Your task to perform on an android device: Open network settings Image 0: 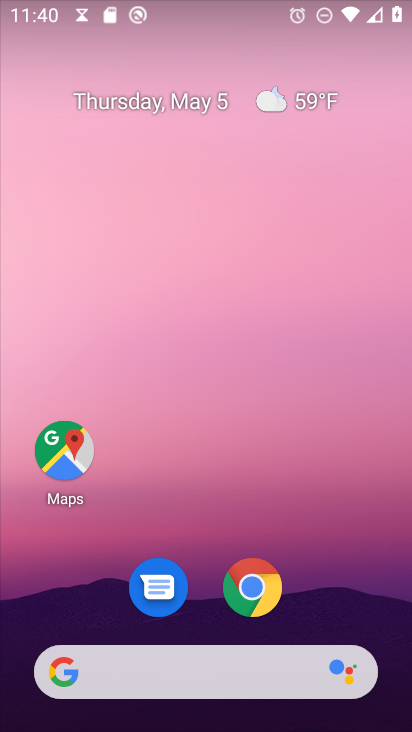
Step 0: drag from (307, 575) to (263, 0)
Your task to perform on an android device: Open network settings Image 1: 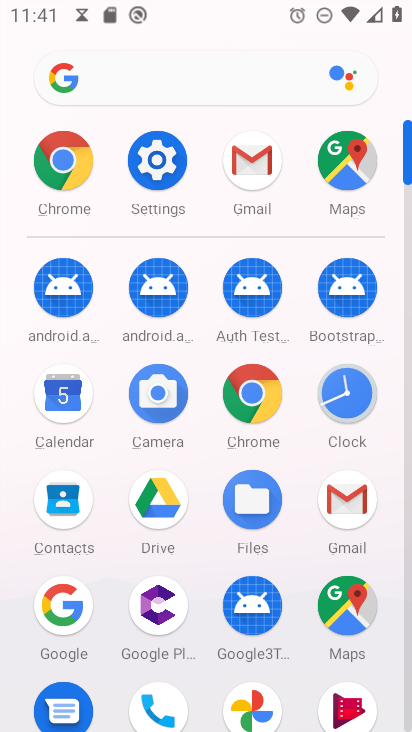
Step 1: click (158, 153)
Your task to perform on an android device: Open network settings Image 2: 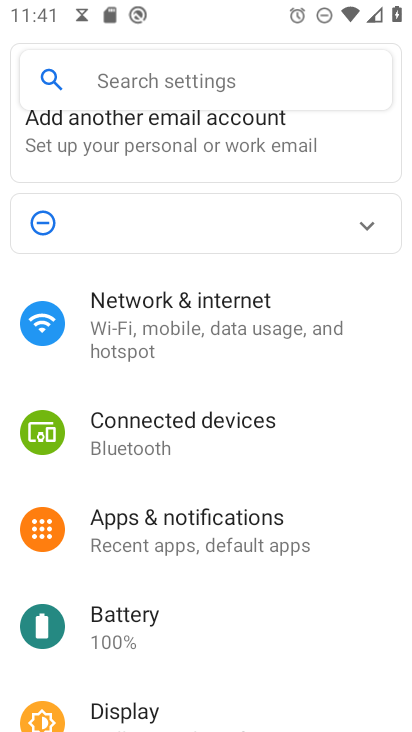
Step 2: drag from (351, 576) to (332, 187)
Your task to perform on an android device: Open network settings Image 3: 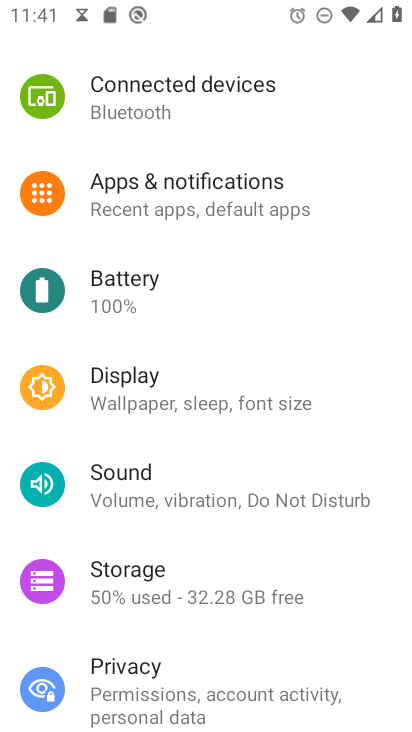
Step 3: drag from (318, 184) to (255, 617)
Your task to perform on an android device: Open network settings Image 4: 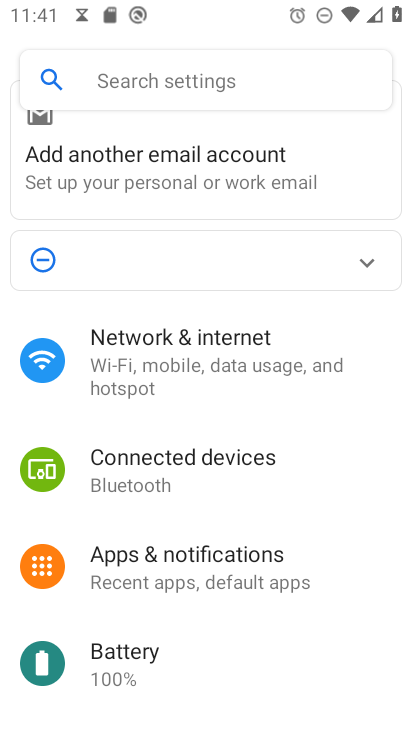
Step 4: drag from (255, 560) to (320, 185)
Your task to perform on an android device: Open network settings Image 5: 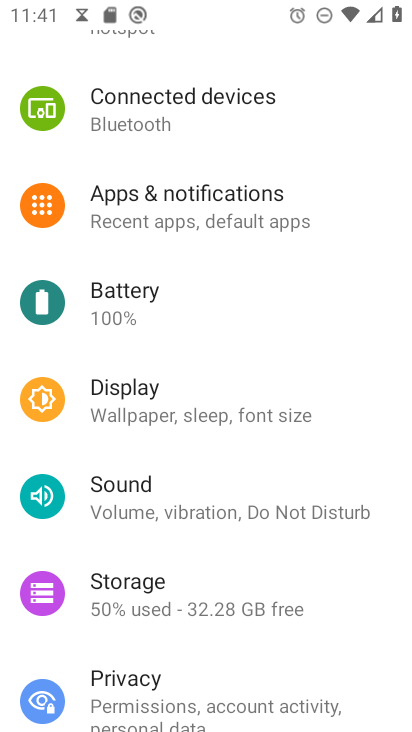
Step 5: drag from (393, 110) to (350, 461)
Your task to perform on an android device: Open network settings Image 6: 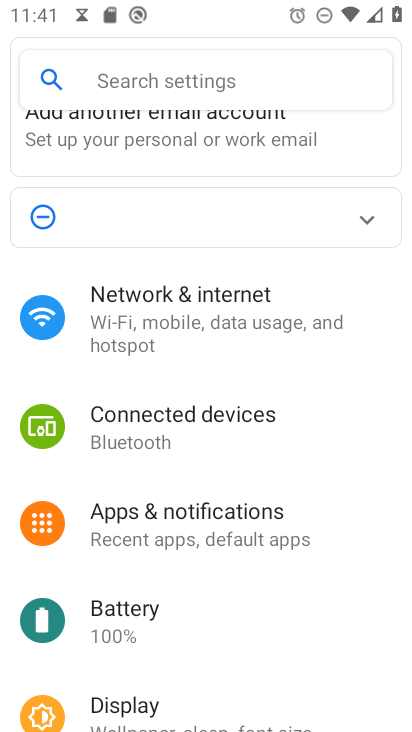
Step 6: click (164, 508)
Your task to perform on an android device: Open network settings Image 7: 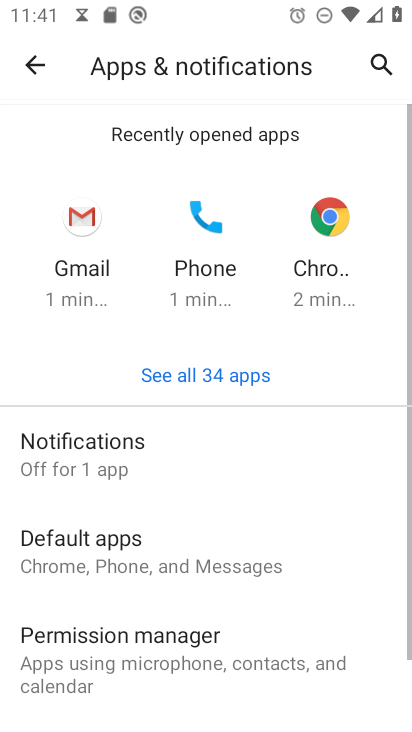
Step 7: click (29, 48)
Your task to perform on an android device: Open network settings Image 8: 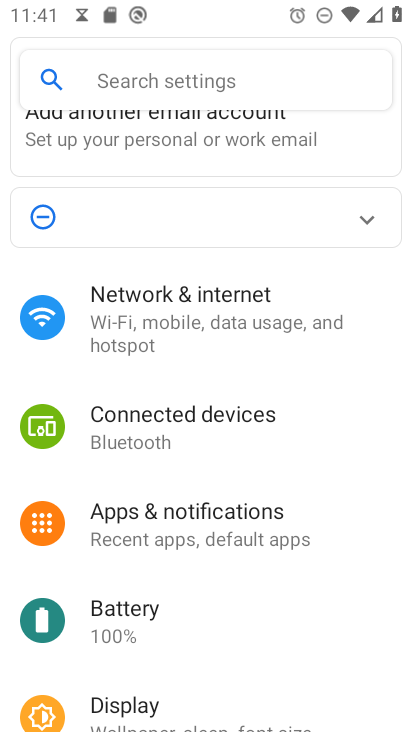
Step 8: click (162, 309)
Your task to perform on an android device: Open network settings Image 9: 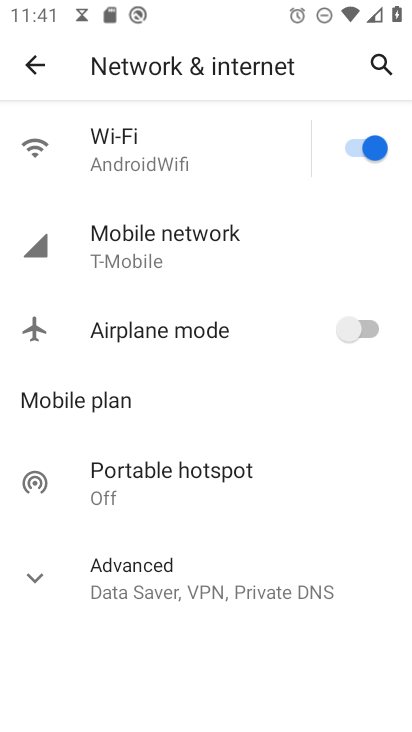
Step 9: drag from (215, 485) to (269, 167)
Your task to perform on an android device: Open network settings Image 10: 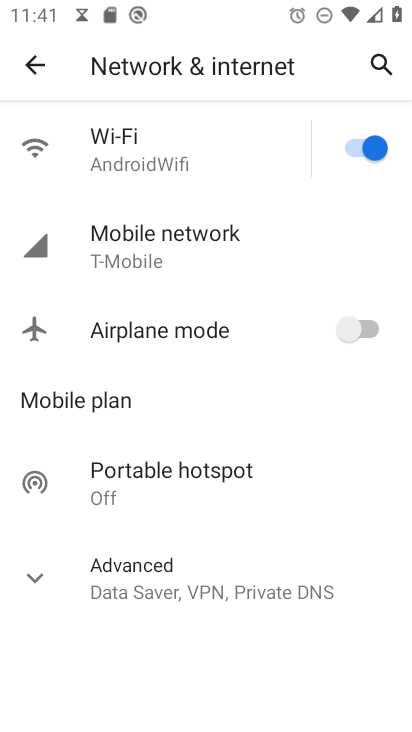
Step 10: click (51, 573)
Your task to perform on an android device: Open network settings Image 11: 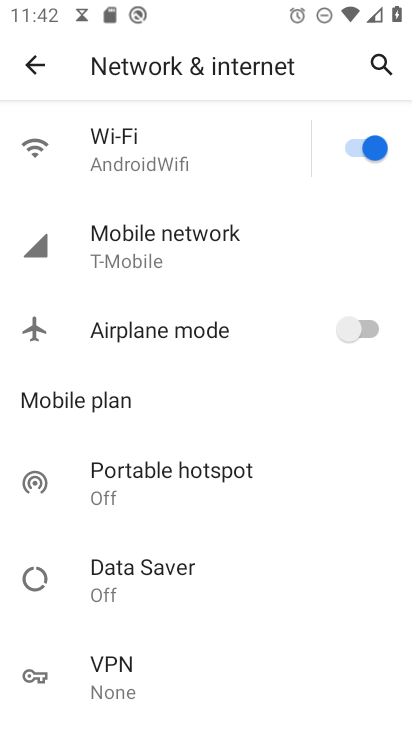
Step 11: task complete